Your task to perform on an android device: snooze an email in the gmail app Image 0: 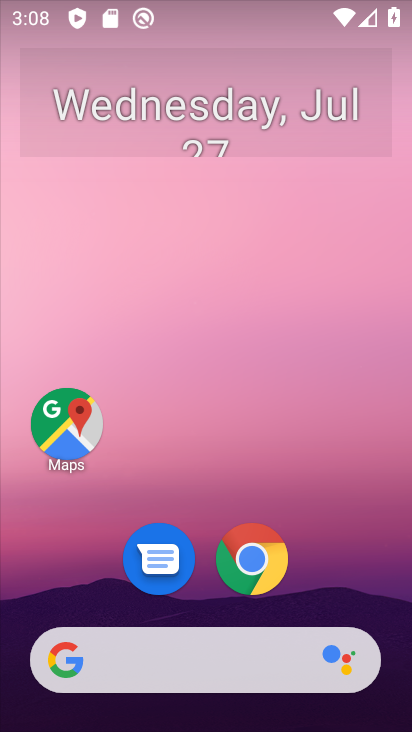
Step 0: drag from (75, 597) to (216, 75)
Your task to perform on an android device: snooze an email in the gmail app Image 1: 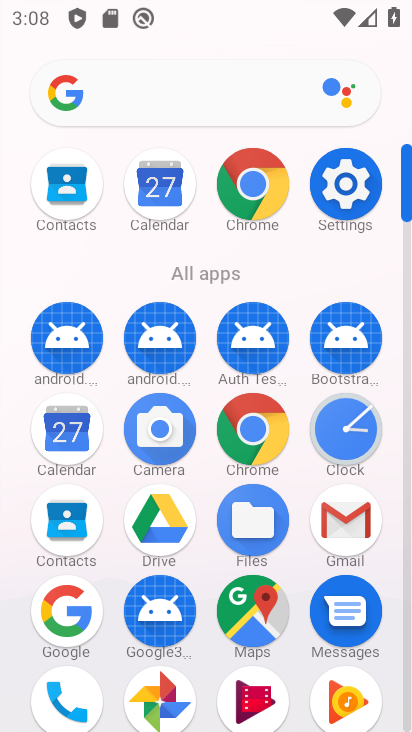
Step 1: click (349, 521)
Your task to perform on an android device: snooze an email in the gmail app Image 2: 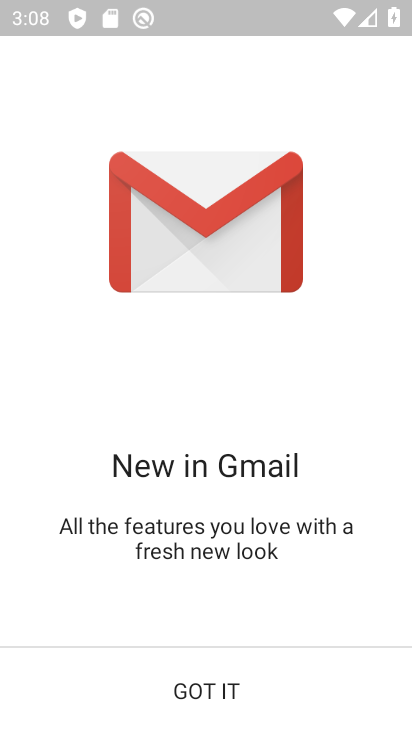
Step 2: click (224, 678)
Your task to perform on an android device: snooze an email in the gmail app Image 3: 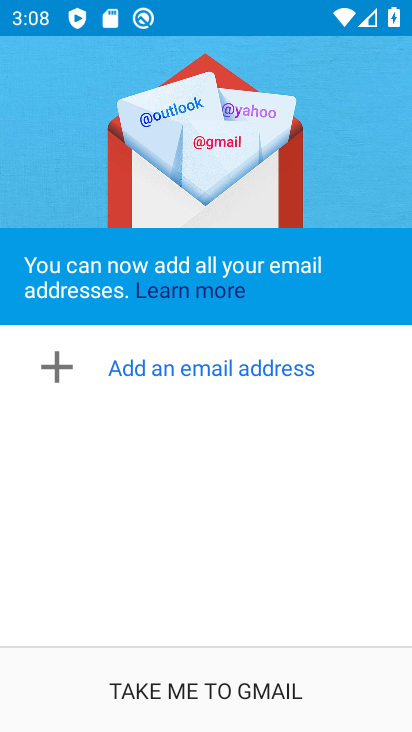
Step 3: click (222, 680)
Your task to perform on an android device: snooze an email in the gmail app Image 4: 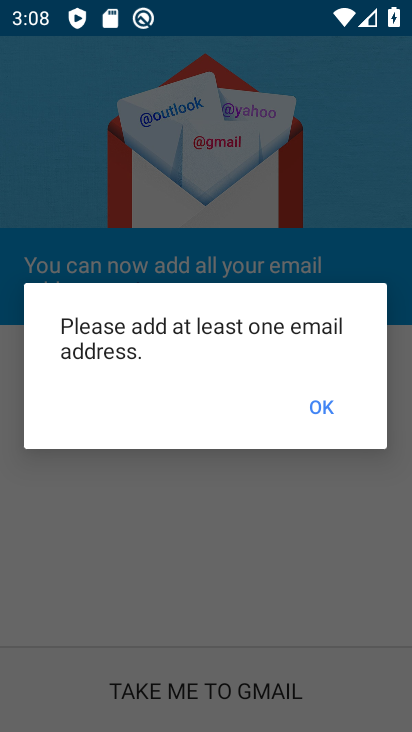
Step 4: press back button
Your task to perform on an android device: snooze an email in the gmail app Image 5: 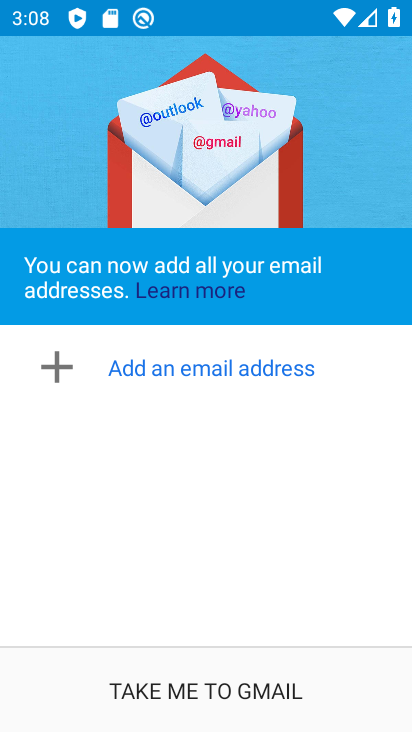
Step 5: press back button
Your task to perform on an android device: snooze an email in the gmail app Image 6: 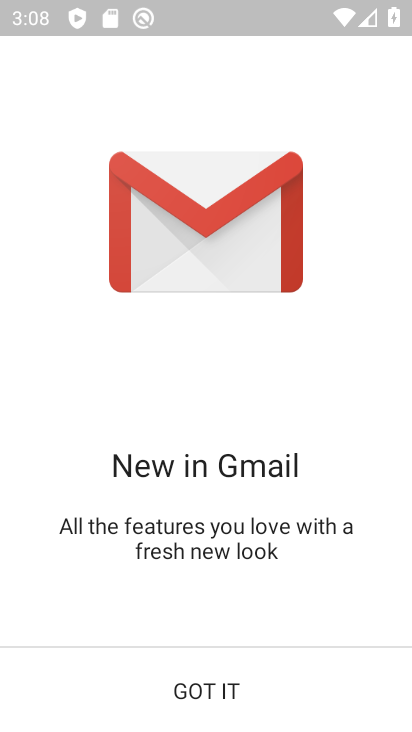
Step 6: press home button
Your task to perform on an android device: snooze an email in the gmail app Image 7: 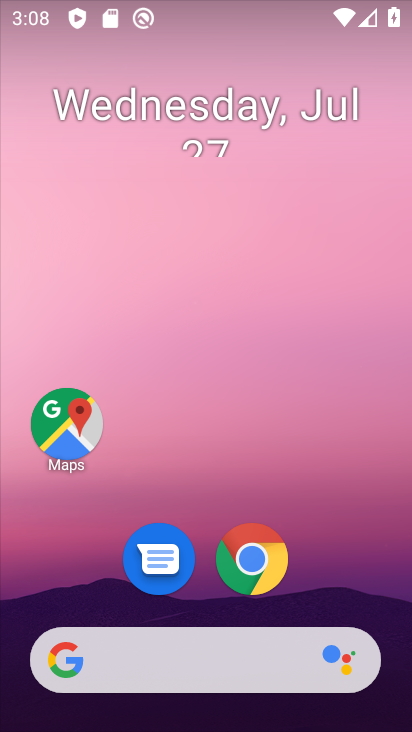
Step 7: drag from (117, 454) to (222, 98)
Your task to perform on an android device: snooze an email in the gmail app Image 8: 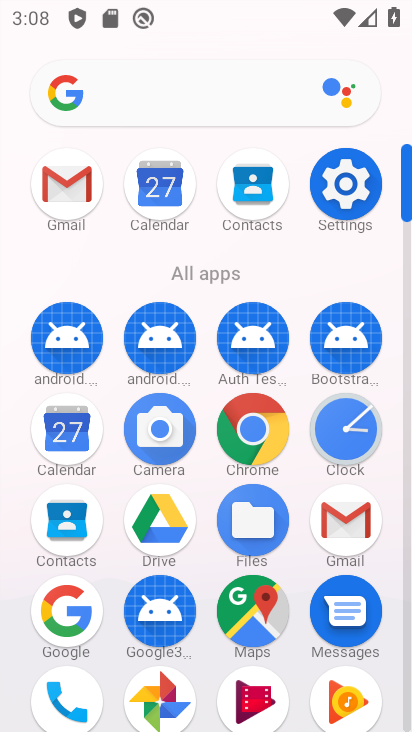
Step 8: click (78, 199)
Your task to perform on an android device: snooze an email in the gmail app Image 9: 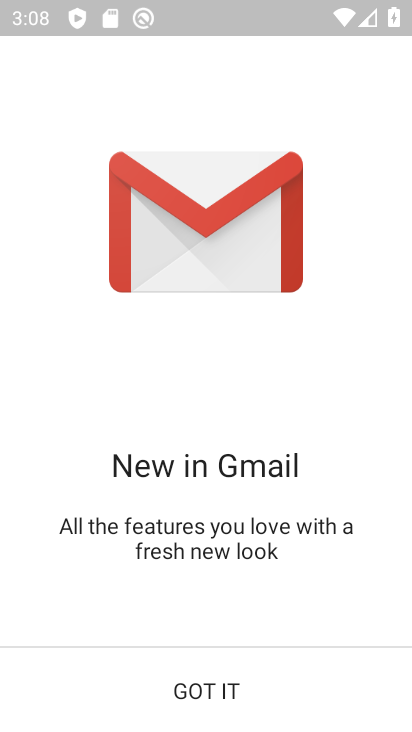
Step 9: task complete